Your task to perform on an android device: Open Google Maps Image 0: 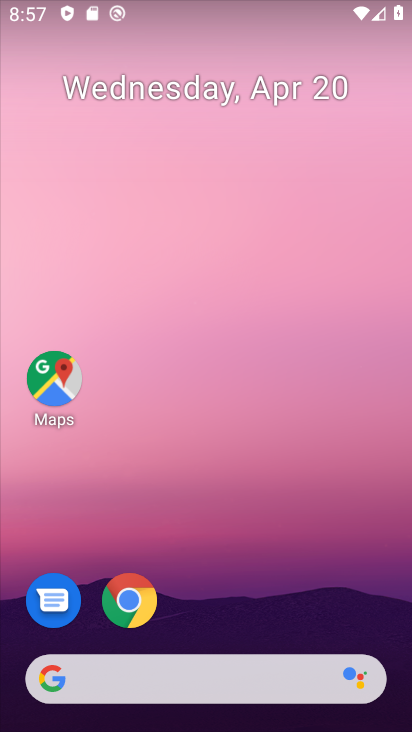
Step 0: click (59, 370)
Your task to perform on an android device: Open Google Maps Image 1: 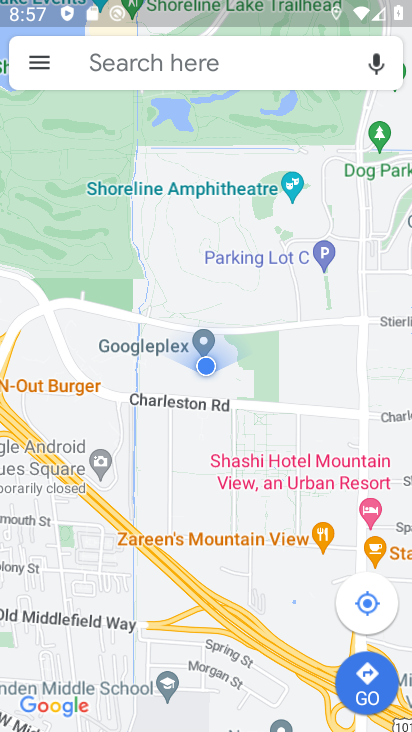
Step 1: task complete